Your task to perform on an android device: toggle notifications settings in the gmail app Image 0: 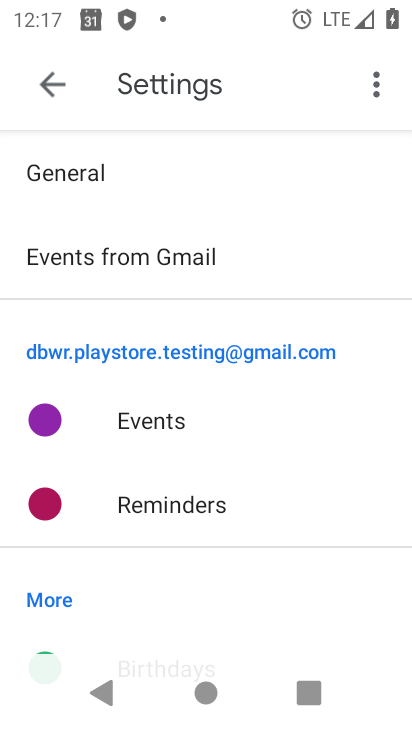
Step 0: press back button
Your task to perform on an android device: toggle notifications settings in the gmail app Image 1: 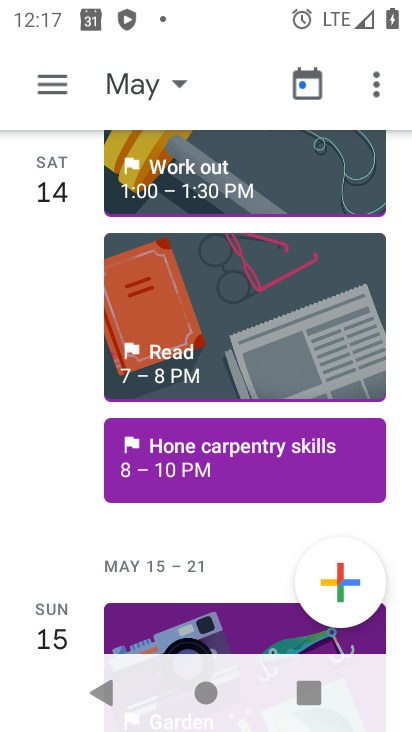
Step 1: press back button
Your task to perform on an android device: toggle notifications settings in the gmail app Image 2: 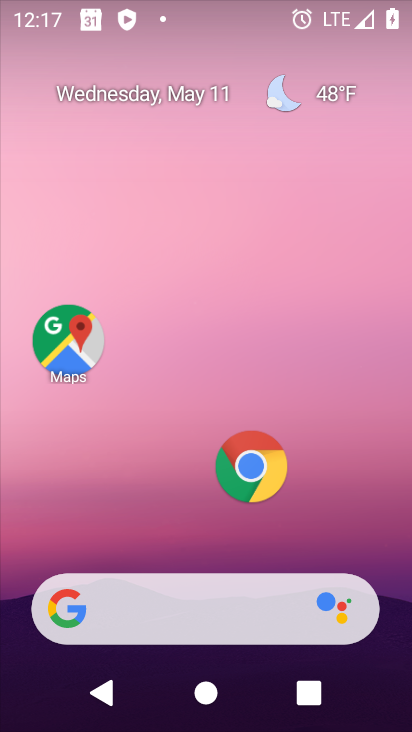
Step 2: drag from (211, 502) to (284, 29)
Your task to perform on an android device: toggle notifications settings in the gmail app Image 3: 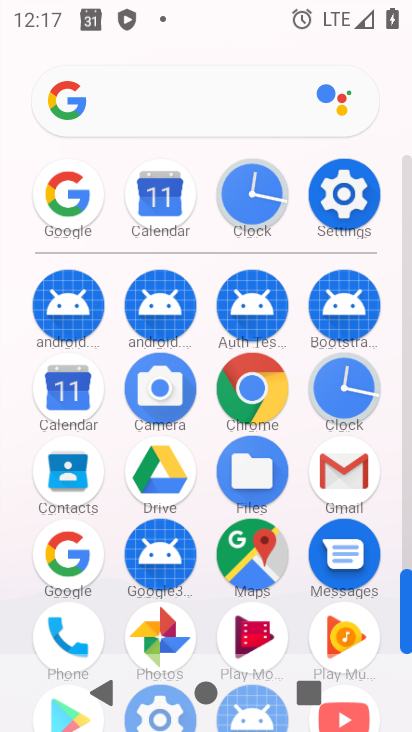
Step 3: click (346, 189)
Your task to perform on an android device: toggle notifications settings in the gmail app Image 4: 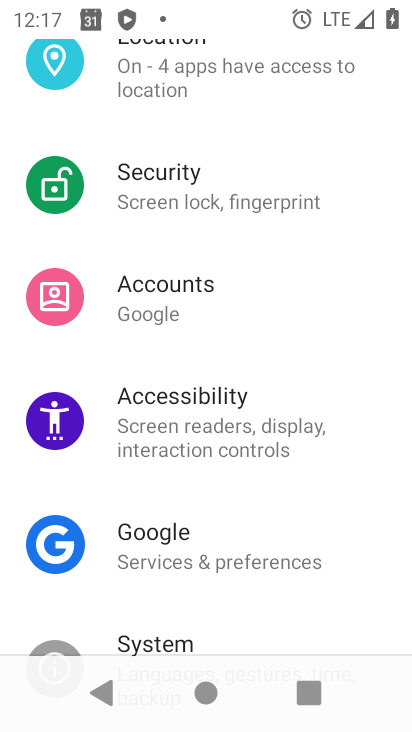
Step 4: press back button
Your task to perform on an android device: toggle notifications settings in the gmail app Image 5: 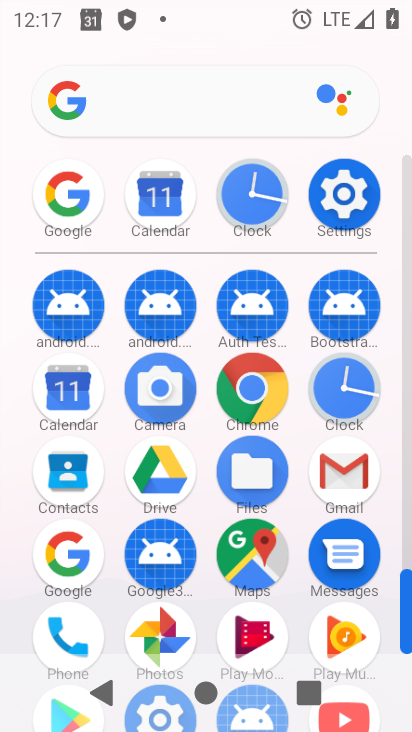
Step 5: click (344, 473)
Your task to perform on an android device: toggle notifications settings in the gmail app Image 6: 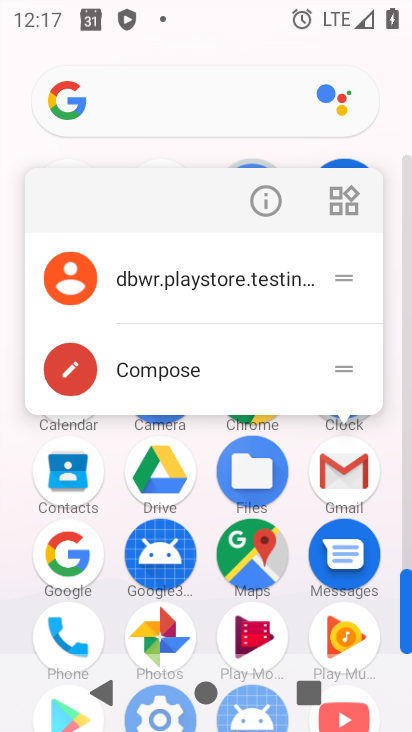
Step 6: click (263, 199)
Your task to perform on an android device: toggle notifications settings in the gmail app Image 7: 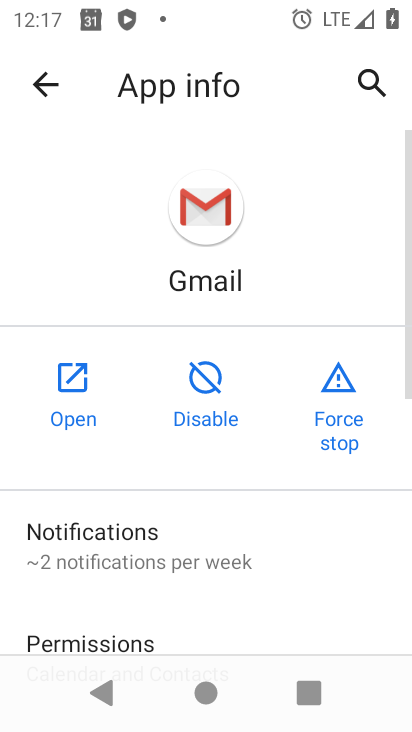
Step 7: click (130, 542)
Your task to perform on an android device: toggle notifications settings in the gmail app Image 8: 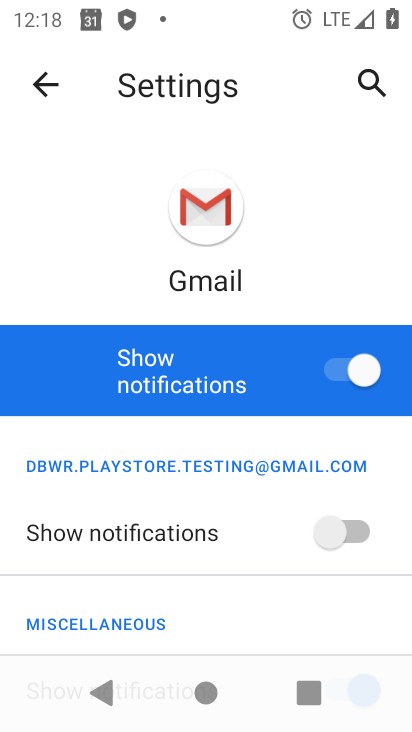
Step 8: click (361, 372)
Your task to perform on an android device: toggle notifications settings in the gmail app Image 9: 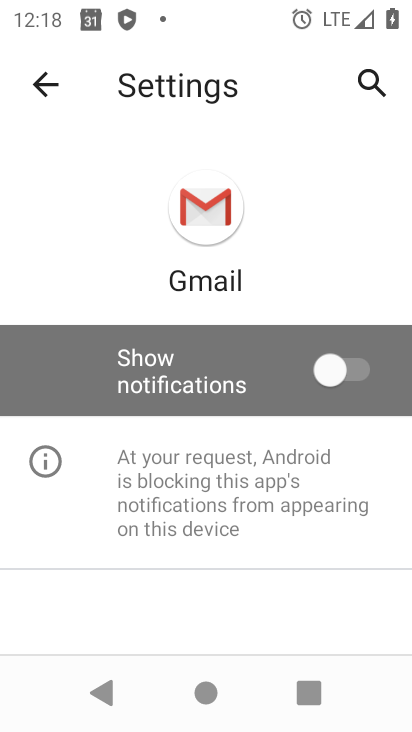
Step 9: task complete